Your task to perform on an android device: Go to ESPN.com Image 0: 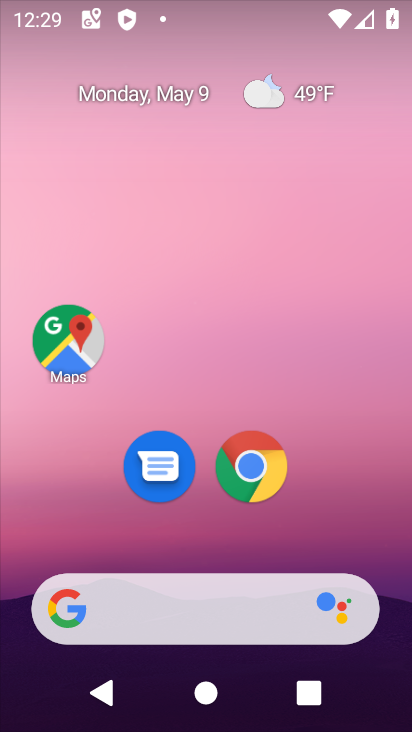
Step 0: click (273, 469)
Your task to perform on an android device: Go to ESPN.com Image 1: 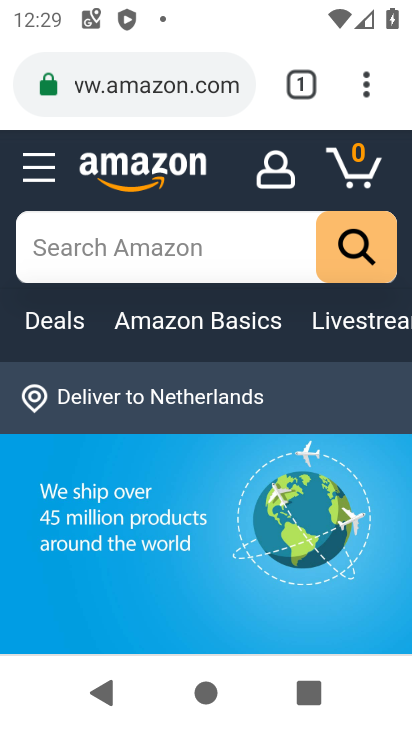
Step 1: click (307, 74)
Your task to perform on an android device: Go to ESPN.com Image 2: 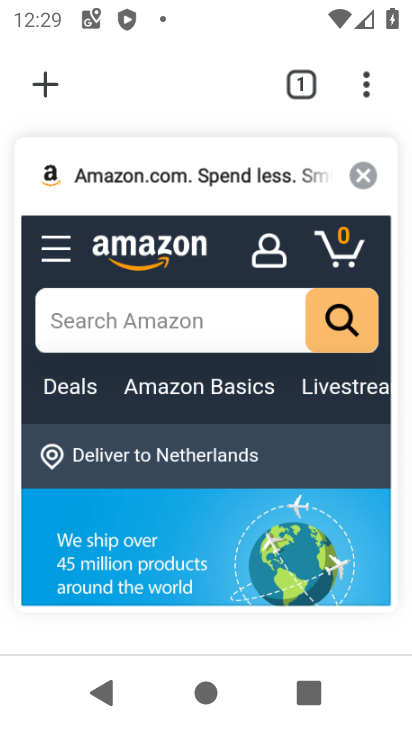
Step 2: click (32, 88)
Your task to perform on an android device: Go to ESPN.com Image 3: 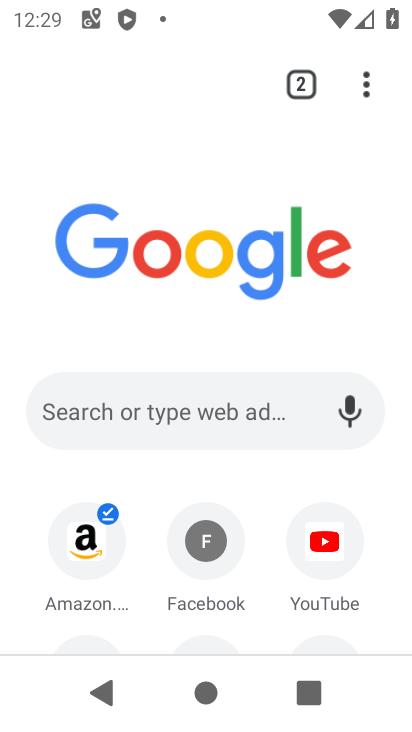
Step 3: drag from (377, 566) to (362, 231)
Your task to perform on an android device: Go to ESPN.com Image 4: 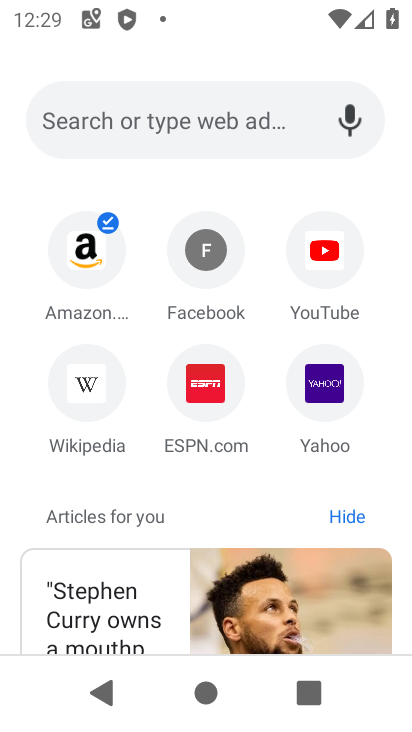
Step 4: click (219, 403)
Your task to perform on an android device: Go to ESPN.com Image 5: 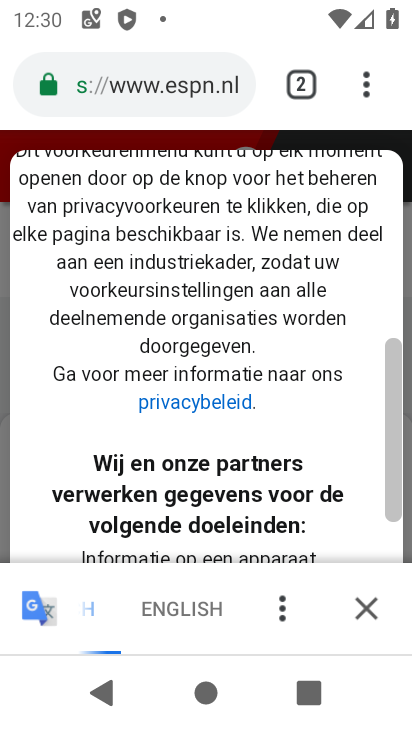
Step 5: task complete